Your task to perform on an android device: Go to Wikipedia Image 0: 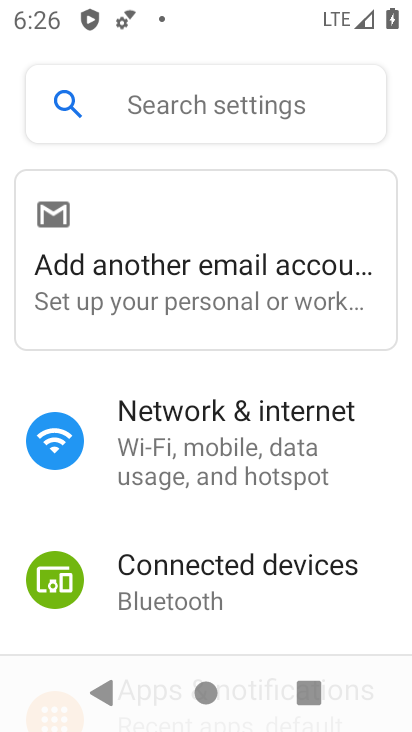
Step 0: press home button
Your task to perform on an android device: Go to Wikipedia Image 1: 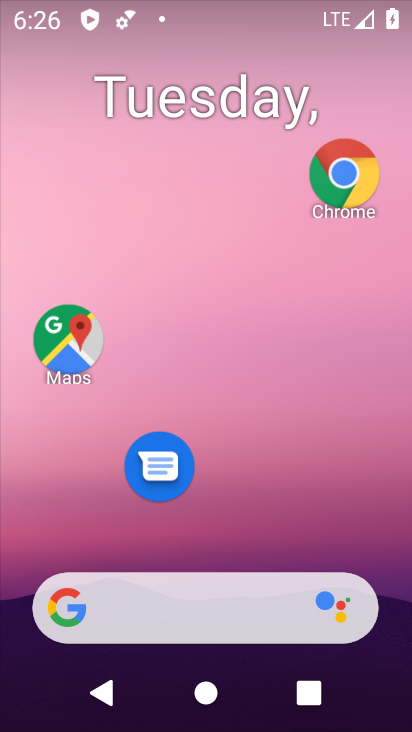
Step 1: click (339, 180)
Your task to perform on an android device: Go to Wikipedia Image 2: 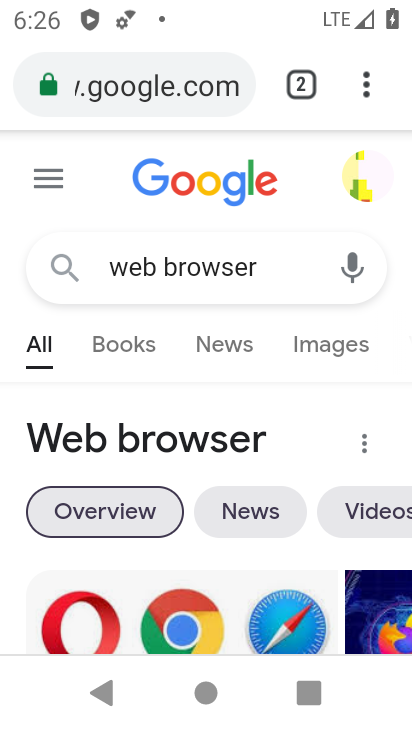
Step 2: click (146, 99)
Your task to perform on an android device: Go to Wikipedia Image 3: 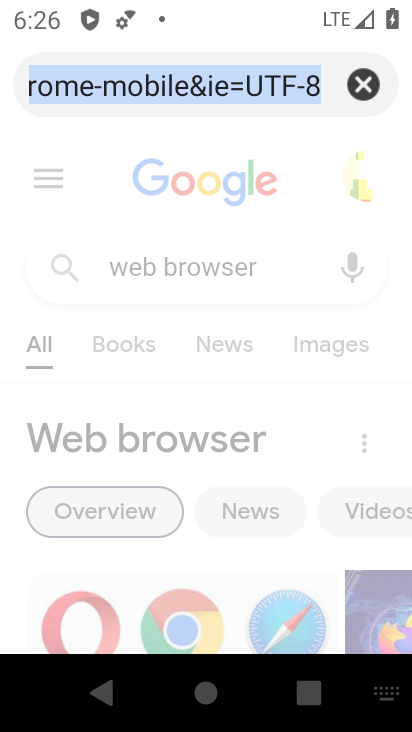
Step 3: click (353, 82)
Your task to perform on an android device: Go to Wikipedia Image 4: 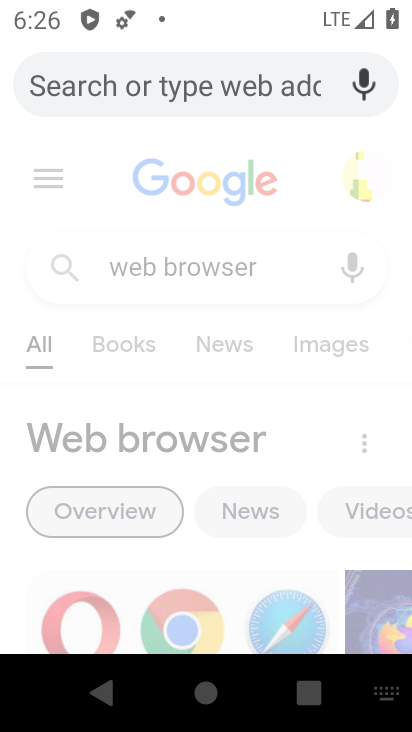
Step 4: type " Wikipedia"
Your task to perform on an android device: Go to Wikipedia Image 5: 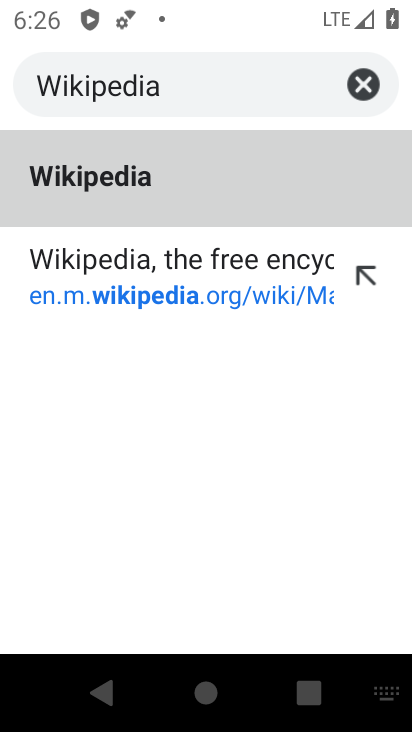
Step 5: click (113, 277)
Your task to perform on an android device: Go to Wikipedia Image 6: 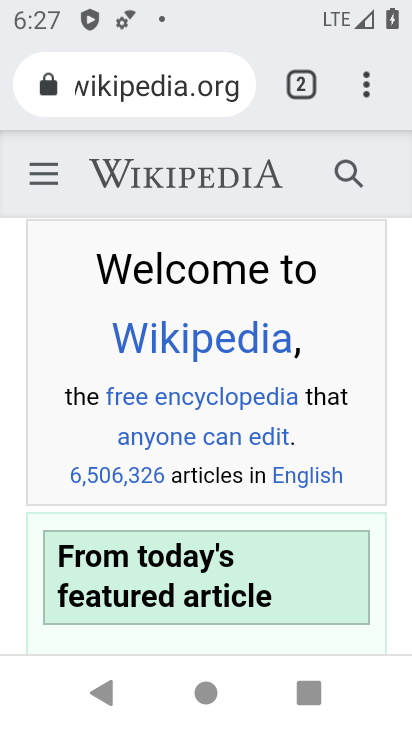
Step 6: task complete